Your task to perform on an android device: remove spam from my inbox in the gmail app Image 0: 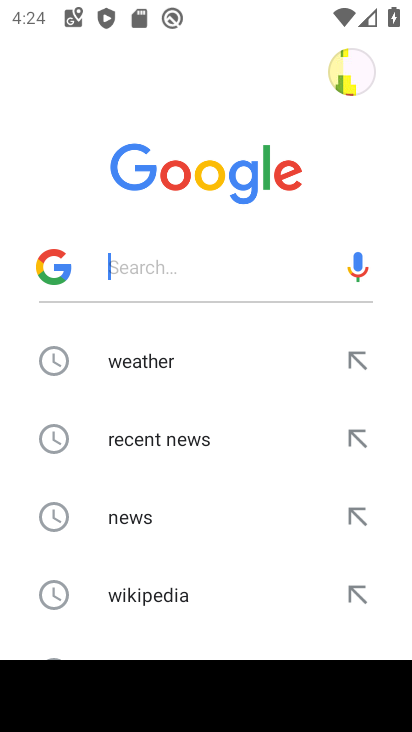
Step 0: press back button
Your task to perform on an android device: remove spam from my inbox in the gmail app Image 1: 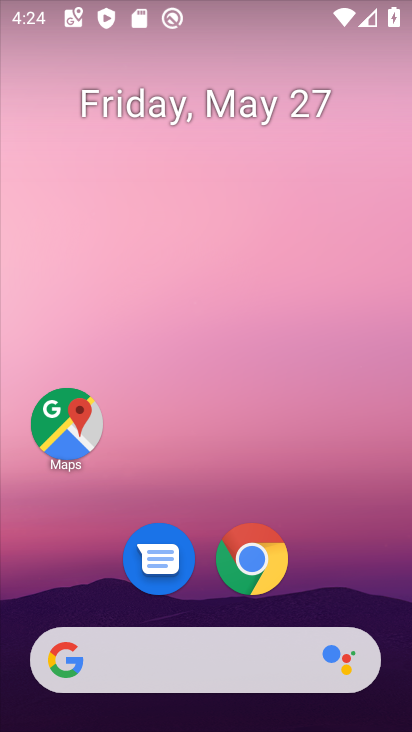
Step 1: drag from (396, 606) to (368, 117)
Your task to perform on an android device: remove spam from my inbox in the gmail app Image 2: 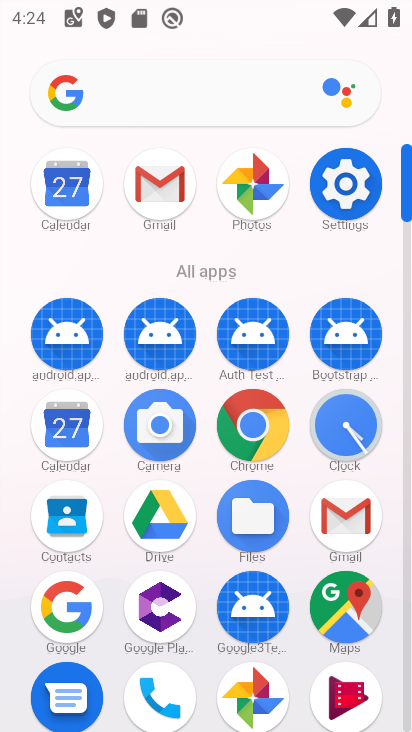
Step 2: click (345, 509)
Your task to perform on an android device: remove spam from my inbox in the gmail app Image 3: 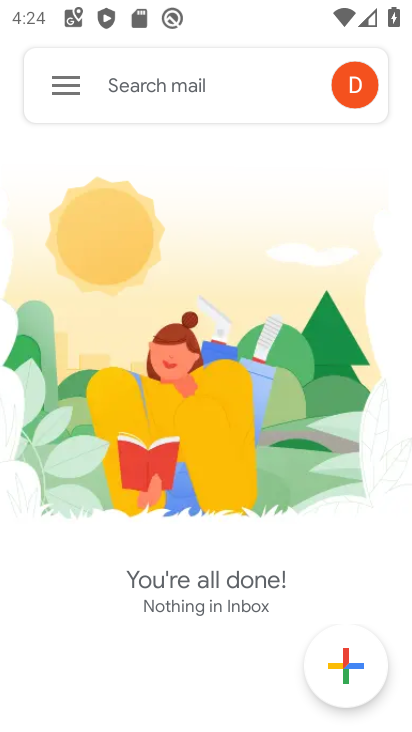
Step 3: click (50, 75)
Your task to perform on an android device: remove spam from my inbox in the gmail app Image 4: 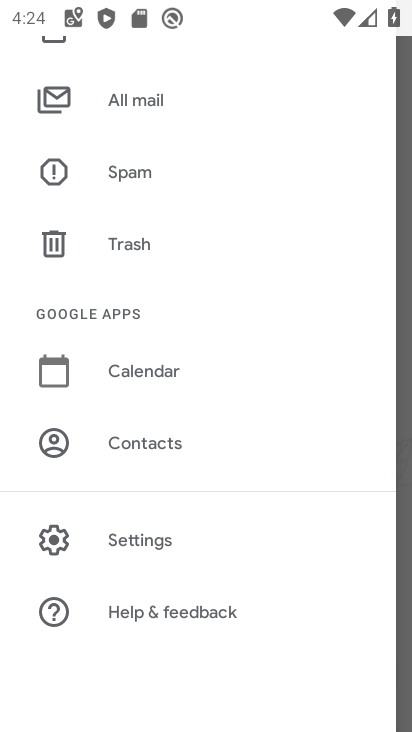
Step 4: click (123, 173)
Your task to perform on an android device: remove spam from my inbox in the gmail app Image 5: 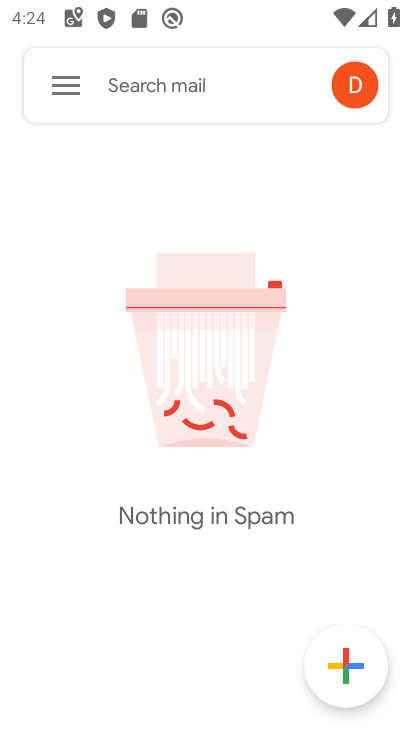
Step 5: task complete